Your task to perform on an android device: Empty the shopping cart on amazon.com. Image 0: 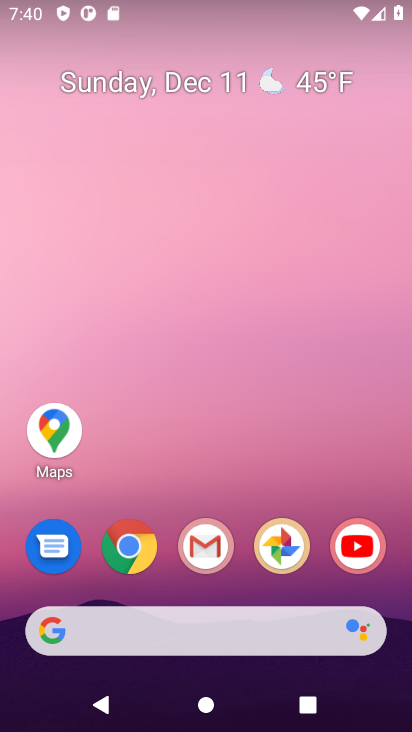
Step 0: click (121, 551)
Your task to perform on an android device: Empty the shopping cart on amazon.com. Image 1: 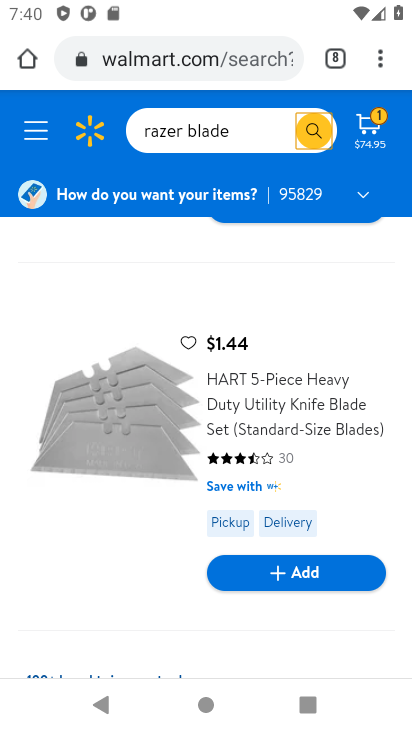
Step 1: click (173, 61)
Your task to perform on an android device: Empty the shopping cart on amazon.com. Image 2: 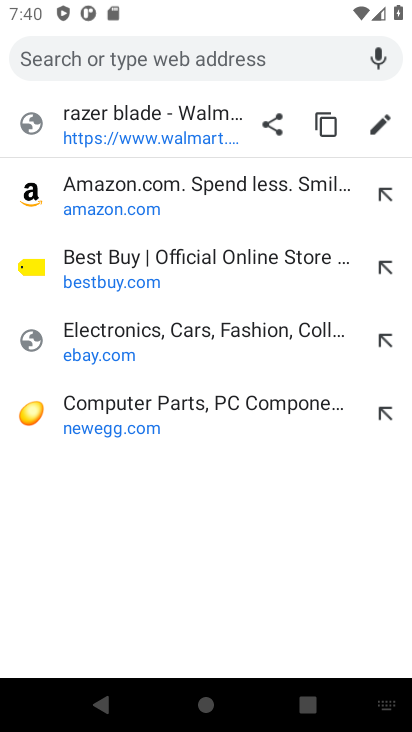
Step 2: click (80, 203)
Your task to perform on an android device: Empty the shopping cart on amazon.com. Image 3: 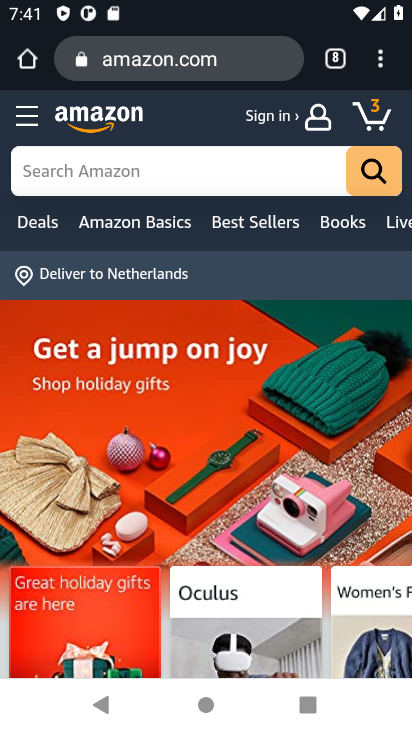
Step 3: click (376, 124)
Your task to perform on an android device: Empty the shopping cart on amazon.com. Image 4: 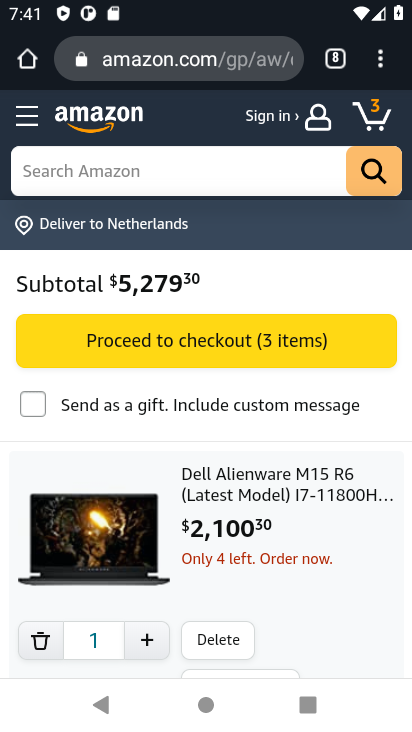
Step 4: click (224, 639)
Your task to perform on an android device: Empty the shopping cart on amazon.com. Image 5: 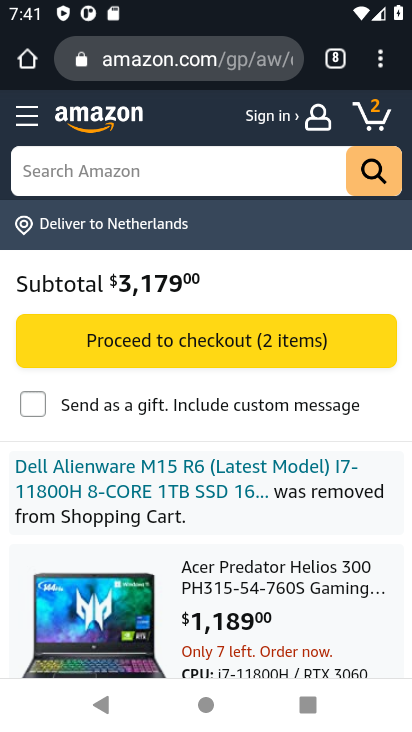
Step 5: drag from (224, 639) to (258, 341)
Your task to perform on an android device: Empty the shopping cart on amazon.com. Image 6: 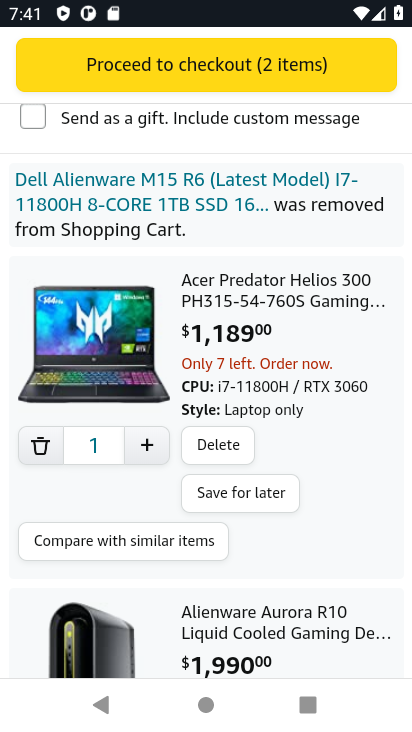
Step 6: click (222, 454)
Your task to perform on an android device: Empty the shopping cart on amazon.com. Image 7: 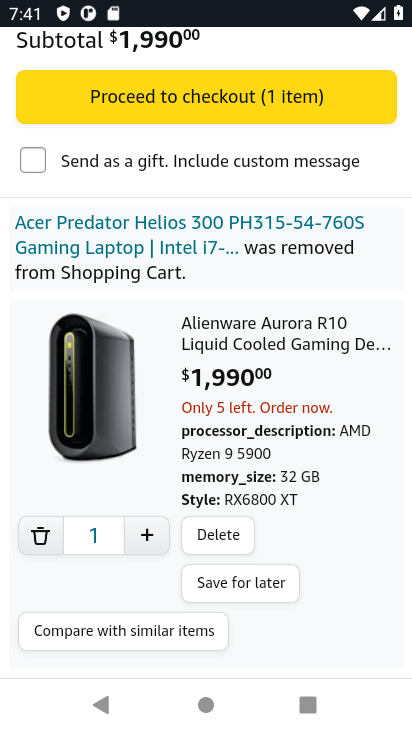
Step 7: click (213, 526)
Your task to perform on an android device: Empty the shopping cart on amazon.com. Image 8: 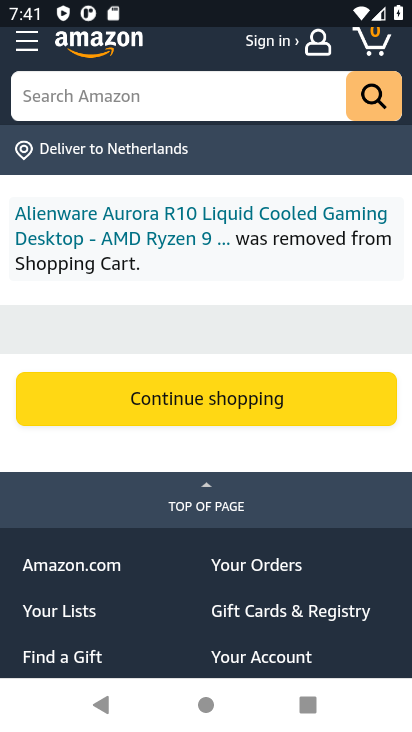
Step 8: task complete